Your task to perform on an android device: Open calendar and show me the second week of next month Image 0: 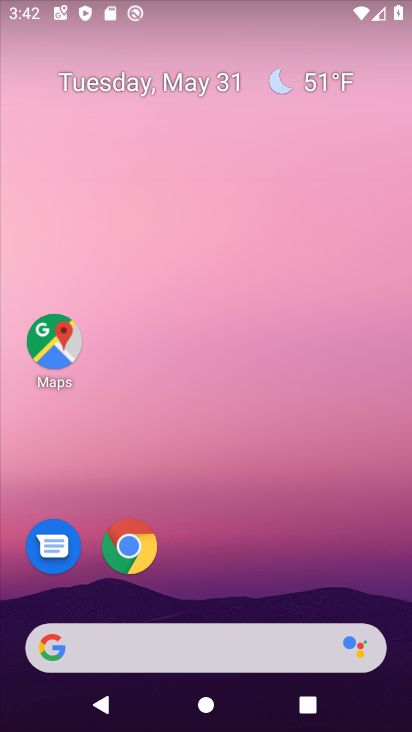
Step 0: drag from (243, 476) to (408, 25)
Your task to perform on an android device: Open calendar and show me the second week of next month Image 1: 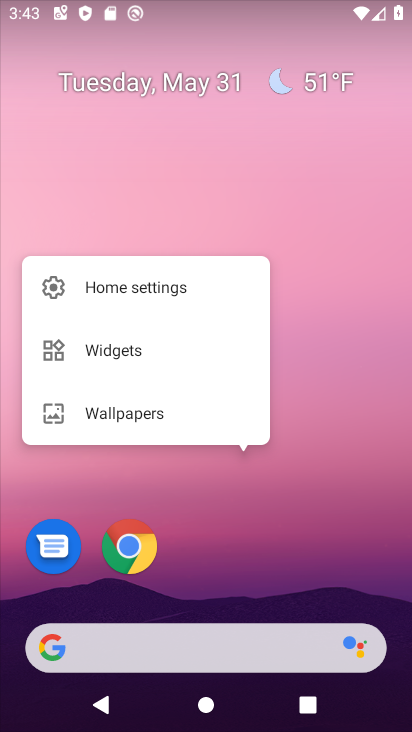
Step 1: drag from (249, 583) to (283, 372)
Your task to perform on an android device: Open calendar and show me the second week of next month Image 2: 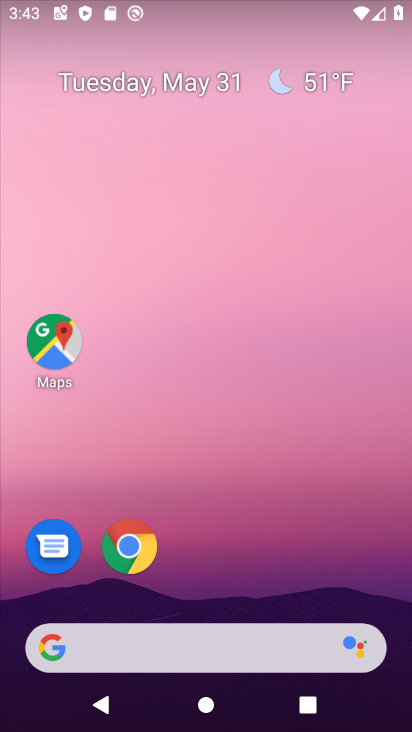
Step 2: drag from (210, 608) to (232, 391)
Your task to perform on an android device: Open calendar and show me the second week of next month Image 3: 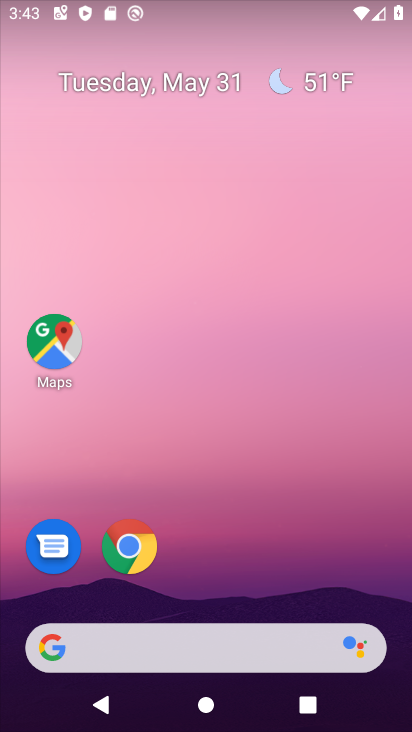
Step 3: drag from (245, 577) to (403, 330)
Your task to perform on an android device: Open calendar and show me the second week of next month Image 4: 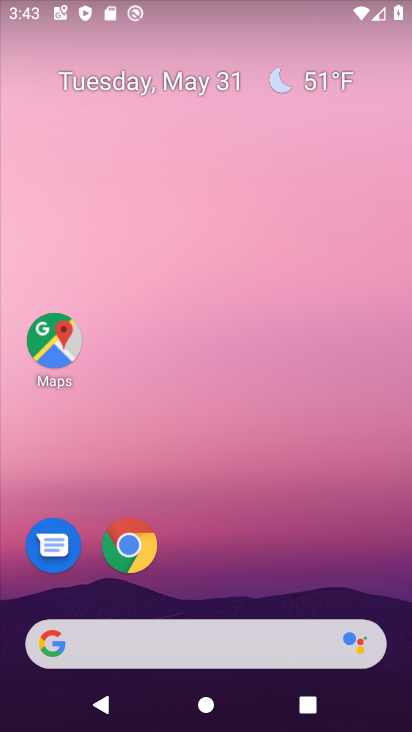
Step 4: click (344, 280)
Your task to perform on an android device: Open calendar and show me the second week of next month Image 5: 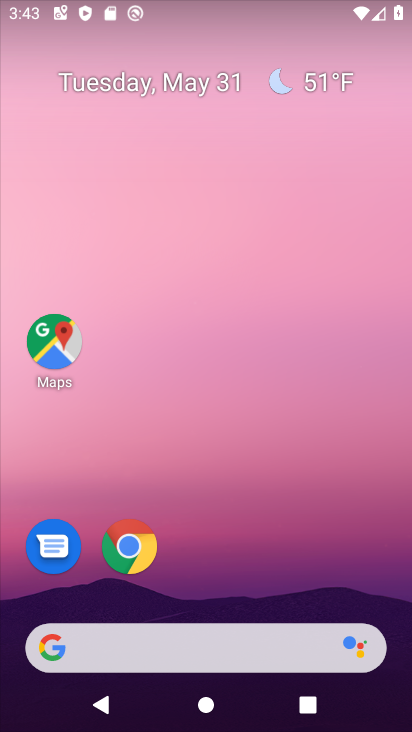
Step 5: drag from (220, 608) to (215, 165)
Your task to perform on an android device: Open calendar and show me the second week of next month Image 6: 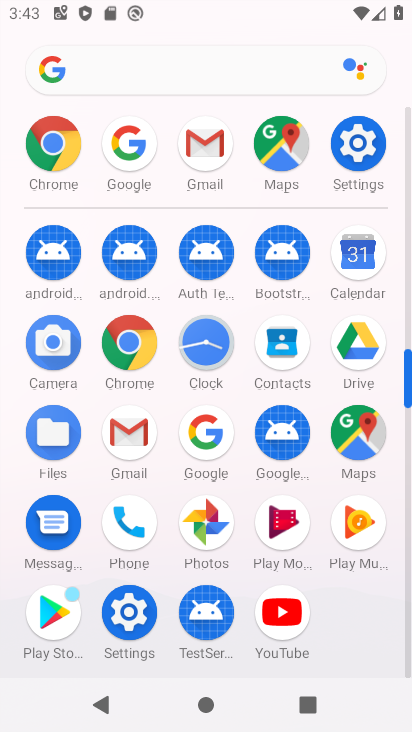
Step 6: click (353, 286)
Your task to perform on an android device: Open calendar and show me the second week of next month Image 7: 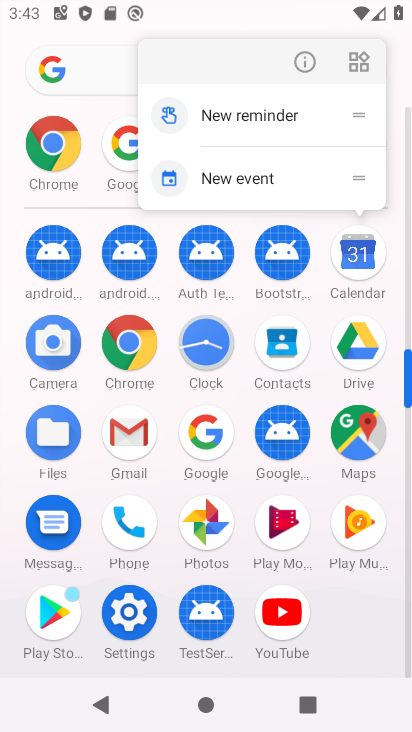
Step 7: click (351, 272)
Your task to perform on an android device: Open calendar and show me the second week of next month Image 8: 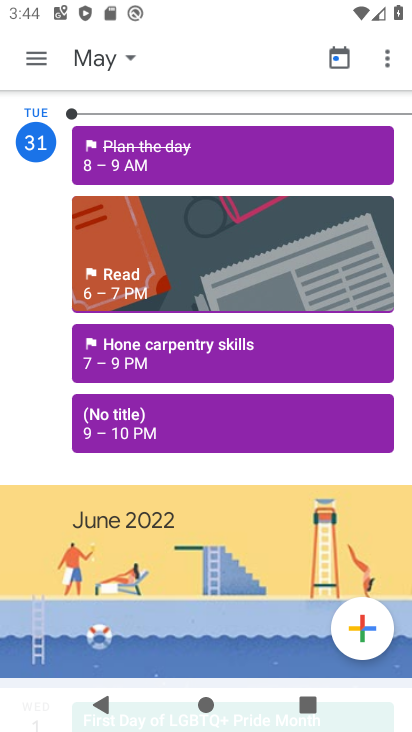
Step 8: click (34, 61)
Your task to perform on an android device: Open calendar and show me the second week of next month Image 9: 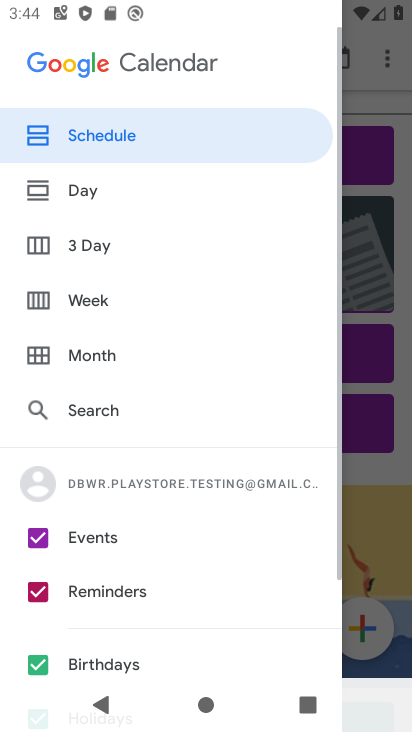
Step 9: click (113, 307)
Your task to perform on an android device: Open calendar and show me the second week of next month Image 10: 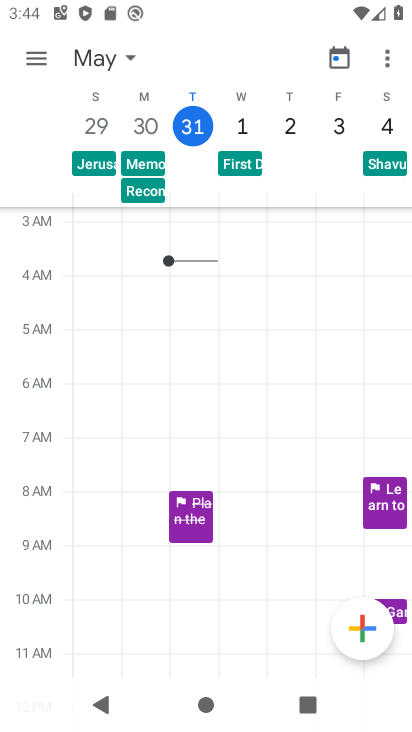
Step 10: click (113, 66)
Your task to perform on an android device: Open calendar and show me the second week of next month Image 11: 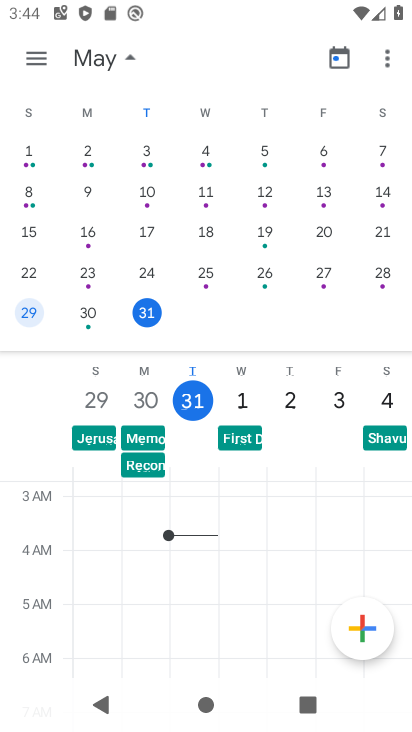
Step 11: drag from (273, 201) to (19, 156)
Your task to perform on an android device: Open calendar and show me the second week of next month Image 12: 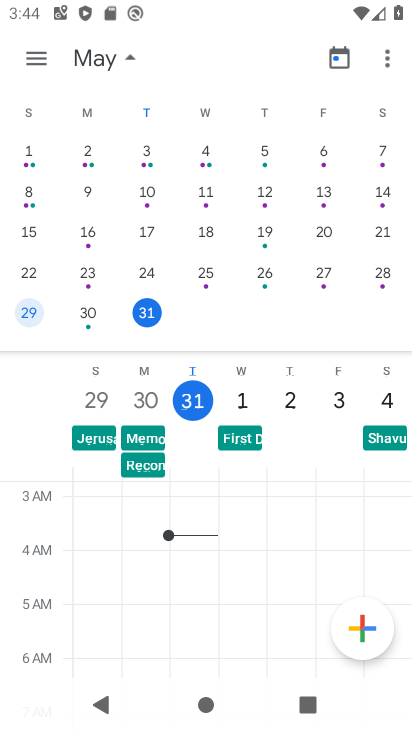
Step 12: drag from (287, 254) to (0, 186)
Your task to perform on an android device: Open calendar and show me the second week of next month Image 13: 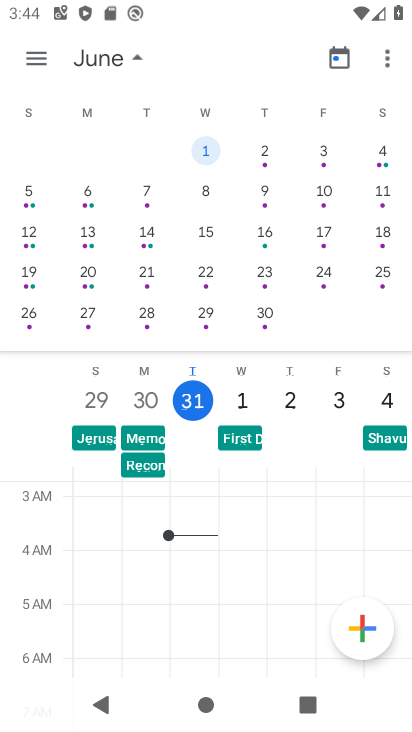
Step 13: click (36, 241)
Your task to perform on an android device: Open calendar and show me the second week of next month Image 14: 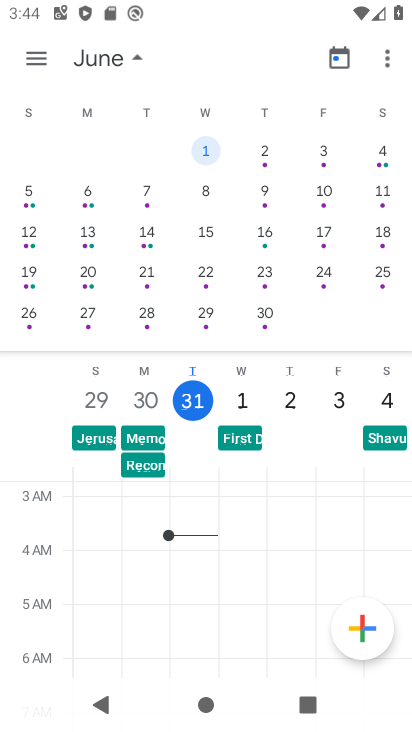
Step 14: click (36, 241)
Your task to perform on an android device: Open calendar and show me the second week of next month Image 15: 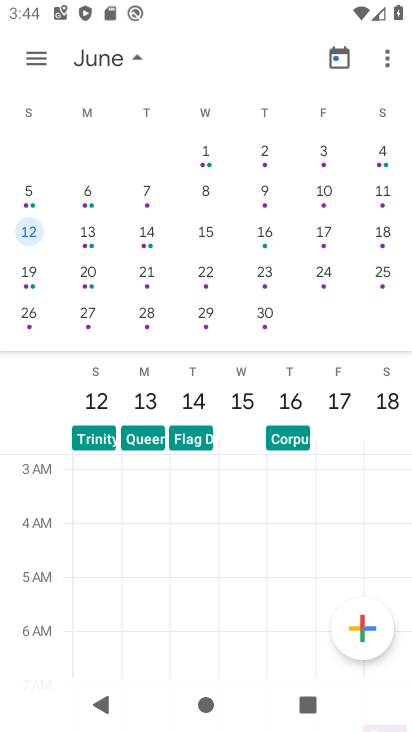
Step 15: task complete